Your task to perform on an android device: What's on my calendar tomorrow? Image 0: 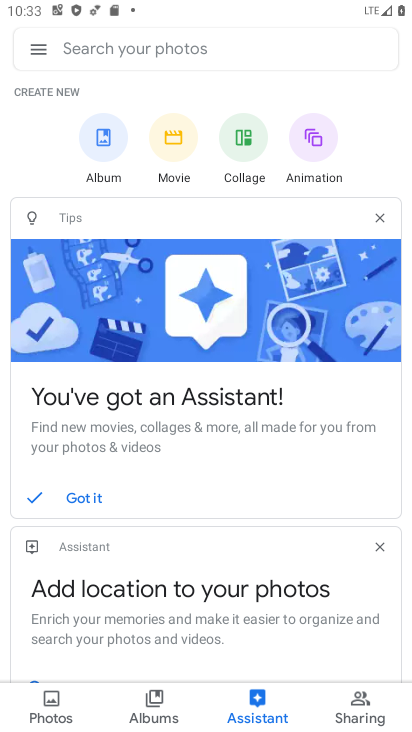
Step 0: press home button
Your task to perform on an android device: What's on my calendar tomorrow? Image 1: 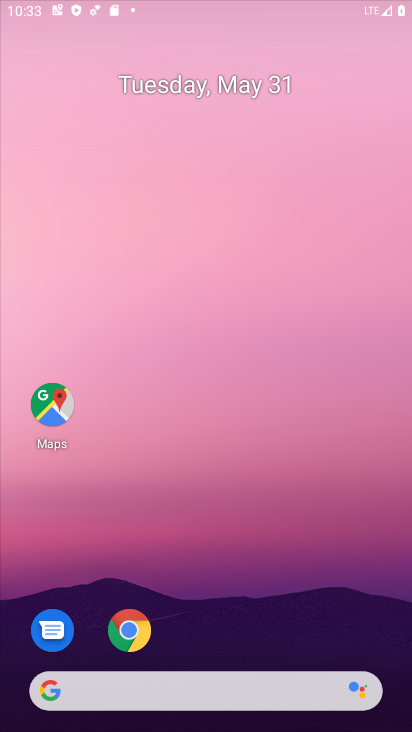
Step 1: drag from (194, 588) to (232, 127)
Your task to perform on an android device: What's on my calendar tomorrow? Image 2: 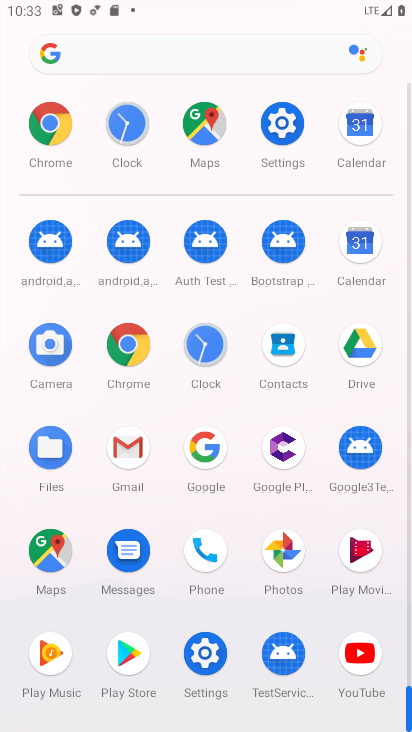
Step 2: click (363, 265)
Your task to perform on an android device: What's on my calendar tomorrow? Image 3: 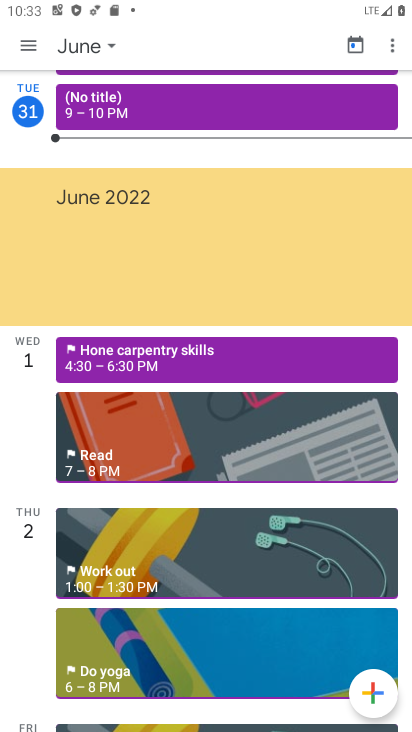
Step 3: task complete